Your task to perform on an android device: Search for cool wooden wall art on Etsy. Image 0: 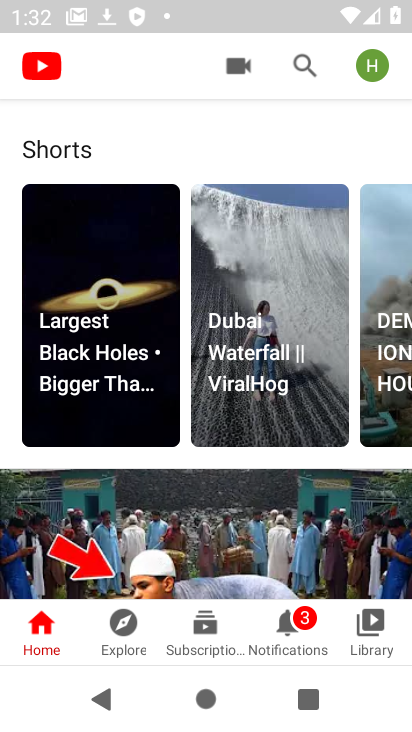
Step 0: press home button
Your task to perform on an android device: Search for cool wooden wall art on Etsy. Image 1: 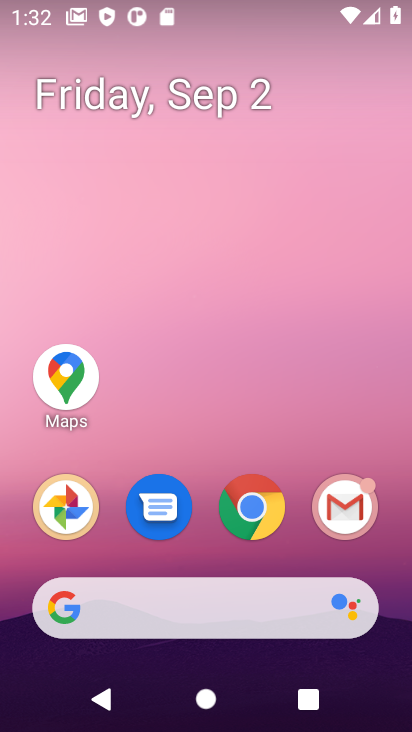
Step 1: click (246, 516)
Your task to perform on an android device: Search for cool wooden wall art on Etsy. Image 2: 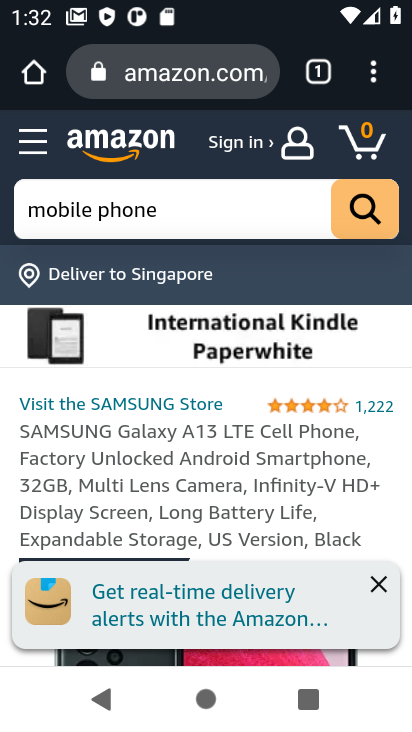
Step 2: click (236, 71)
Your task to perform on an android device: Search for cool wooden wall art on Etsy. Image 3: 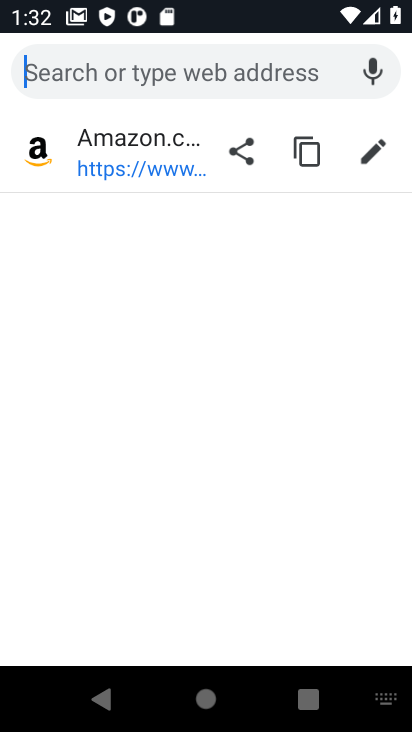
Step 3: type "enst"
Your task to perform on an android device: Search for cool wooden wall art on Etsy. Image 4: 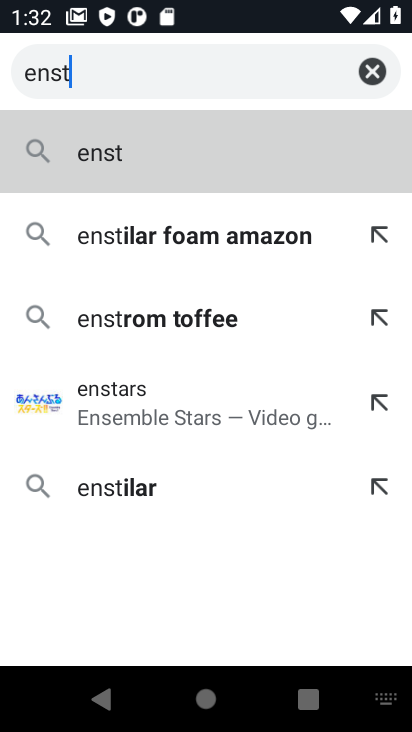
Step 4: click (163, 165)
Your task to perform on an android device: Search for cool wooden wall art on Etsy. Image 5: 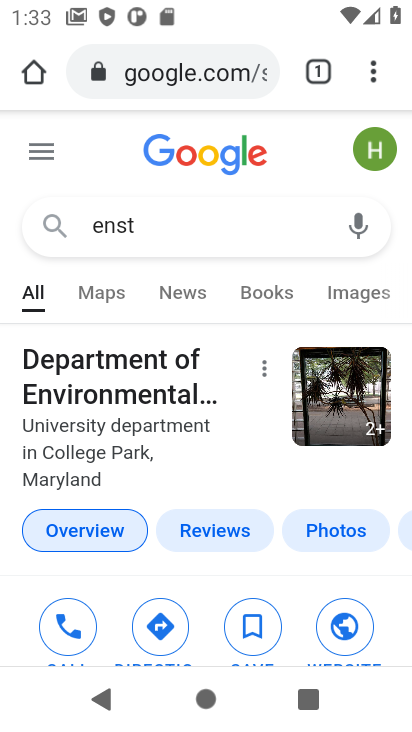
Step 5: click (239, 58)
Your task to perform on an android device: Search for cool wooden wall art on Etsy. Image 6: 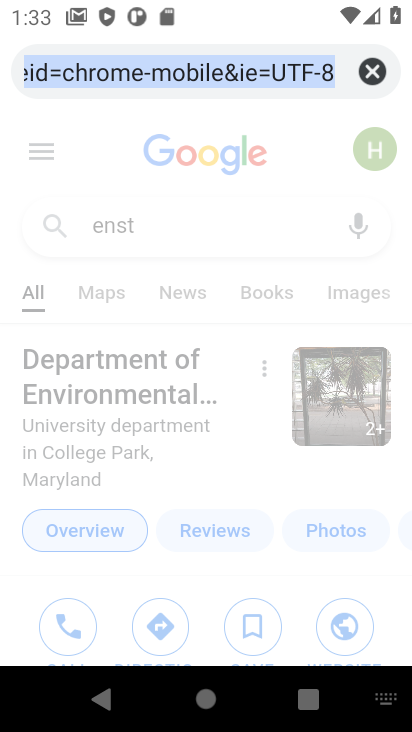
Step 6: click (377, 80)
Your task to perform on an android device: Search for cool wooden wall art on Etsy. Image 7: 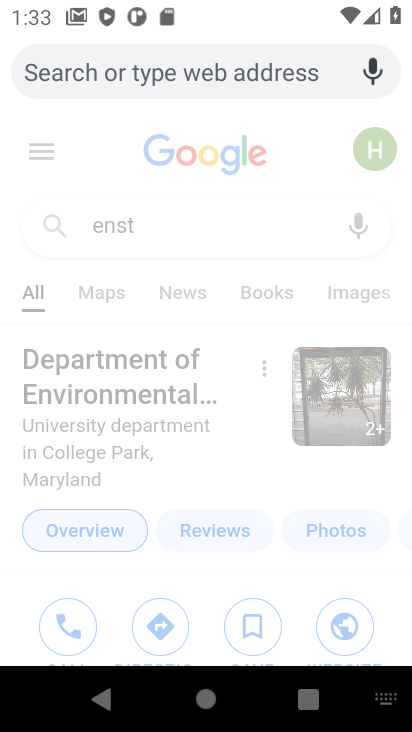
Step 7: type "etsy"
Your task to perform on an android device: Search for cool wooden wall art on Etsy. Image 8: 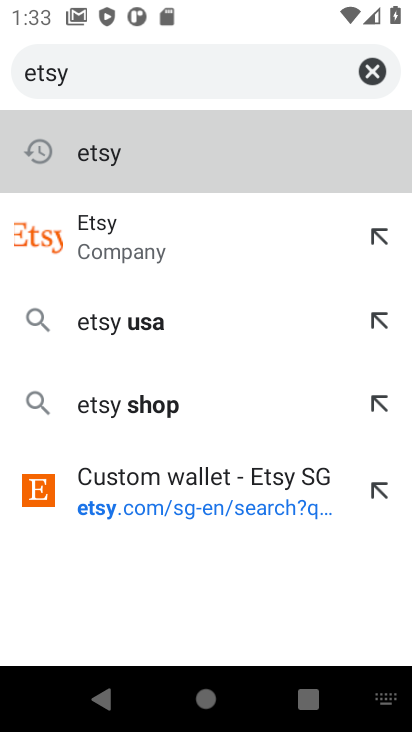
Step 8: click (116, 225)
Your task to perform on an android device: Search for cool wooden wall art on Etsy. Image 9: 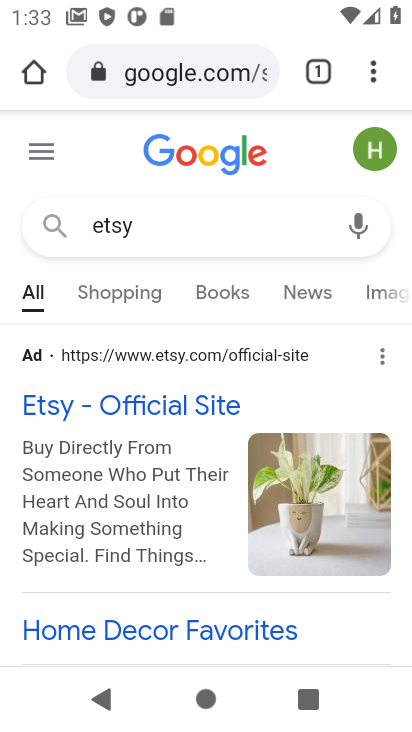
Step 9: click (105, 409)
Your task to perform on an android device: Search for cool wooden wall art on Etsy. Image 10: 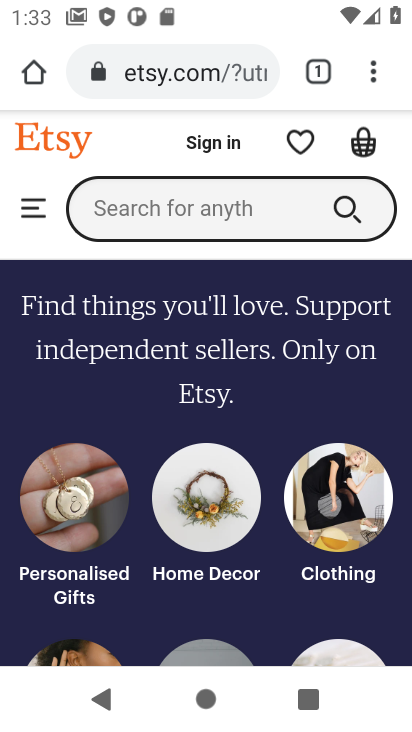
Step 10: click (167, 239)
Your task to perform on an android device: Search for cool wooden wall art on Etsy. Image 11: 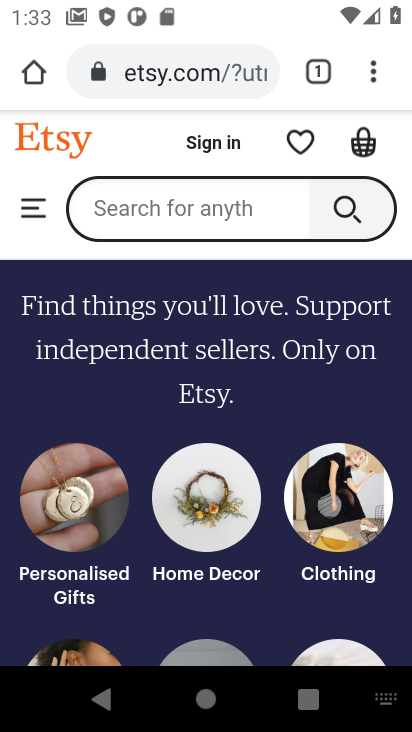
Step 11: type "cool wooden"
Your task to perform on an android device: Search for cool wooden wall art on Etsy. Image 12: 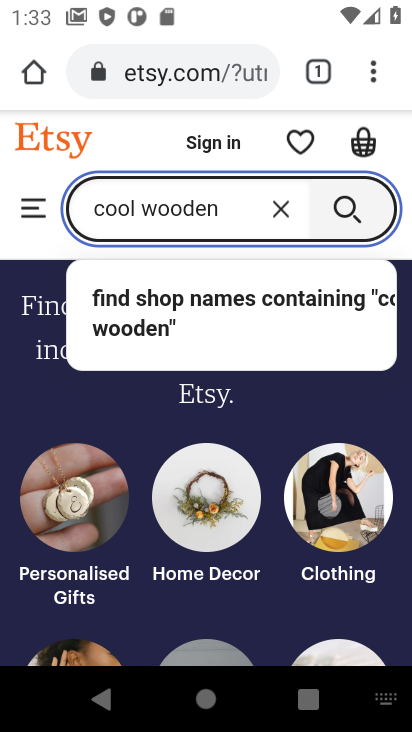
Step 12: click (197, 288)
Your task to perform on an android device: Search for cool wooden wall art on Etsy. Image 13: 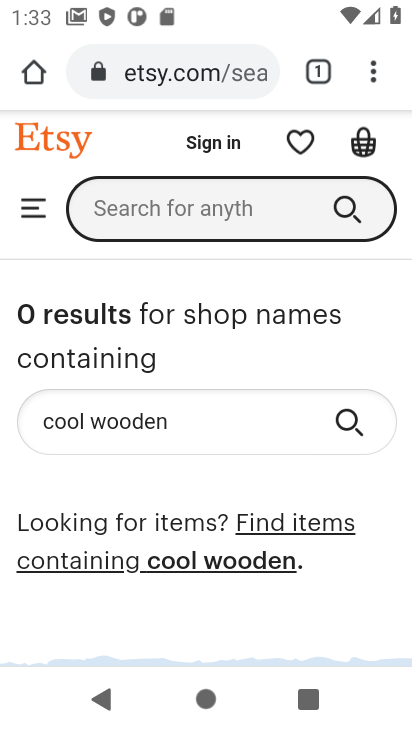
Step 13: click (94, 373)
Your task to perform on an android device: Search for cool wooden wall art on Etsy. Image 14: 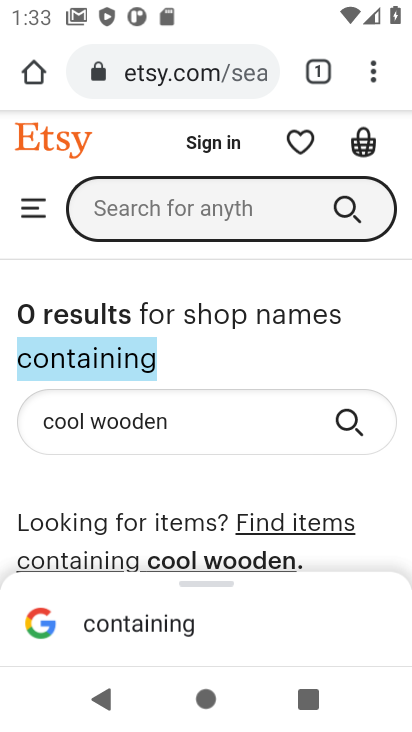
Step 14: task complete